Your task to perform on an android device: toggle sleep mode Image 0: 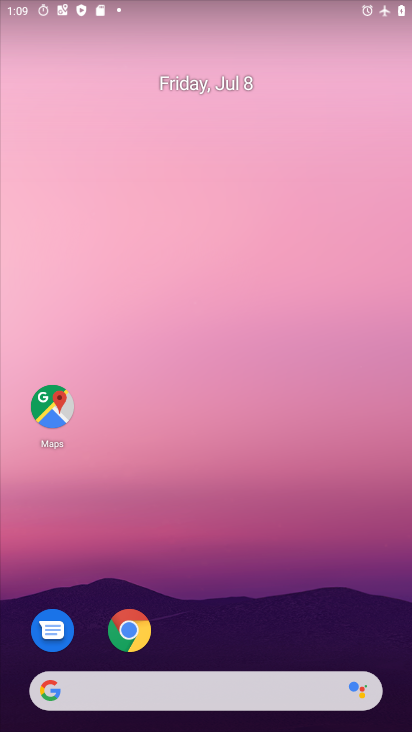
Step 0: drag from (197, 656) to (199, 276)
Your task to perform on an android device: toggle sleep mode Image 1: 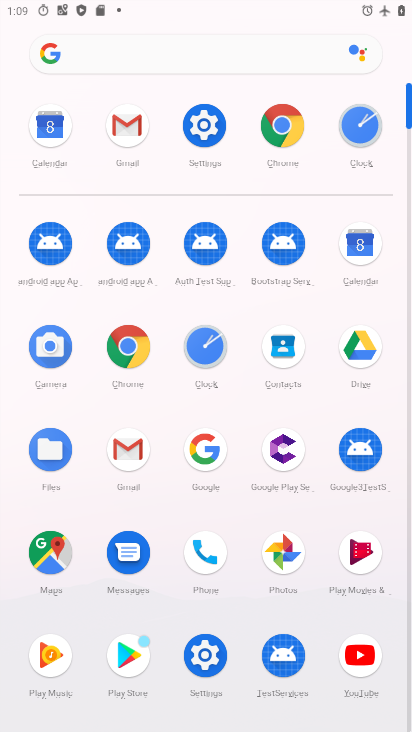
Step 1: click (210, 131)
Your task to perform on an android device: toggle sleep mode Image 2: 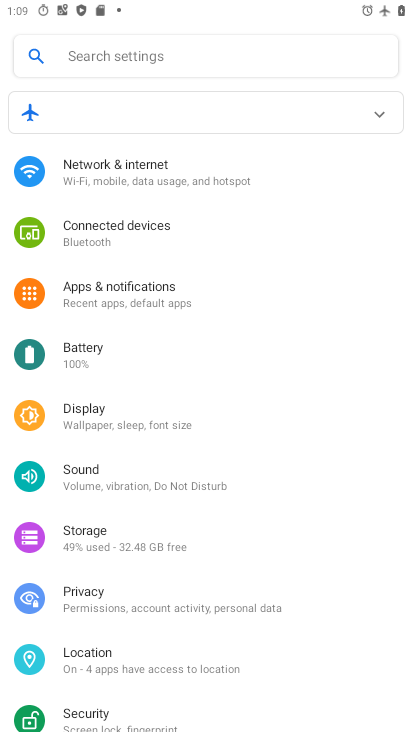
Step 2: click (125, 419)
Your task to perform on an android device: toggle sleep mode Image 3: 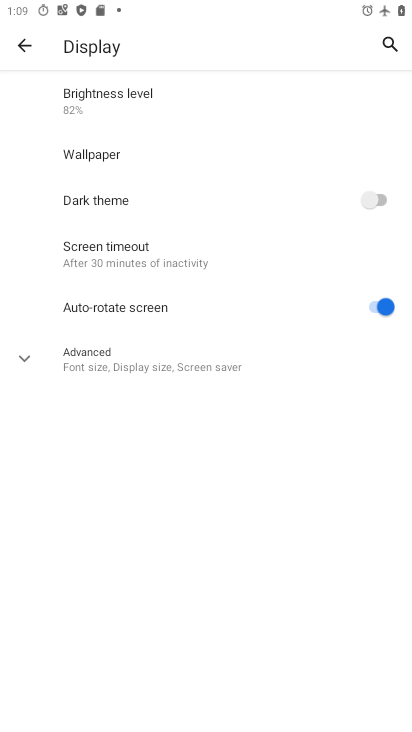
Step 3: click (177, 250)
Your task to perform on an android device: toggle sleep mode Image 4: 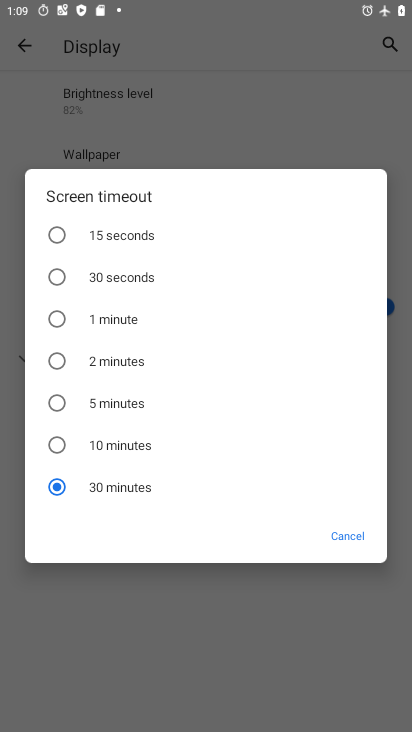
Step 4: click (146, 297)
Your task to perform on an android device: toggle sleep mode Image 5: 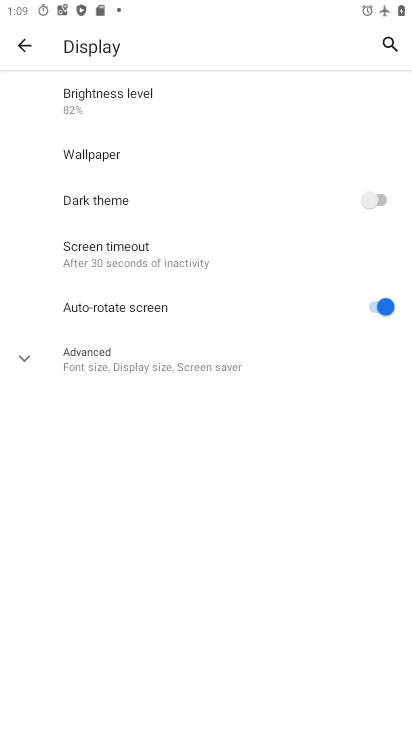
Step 5: task complete